Your task to perform on an android device: Go to Google Image 0: 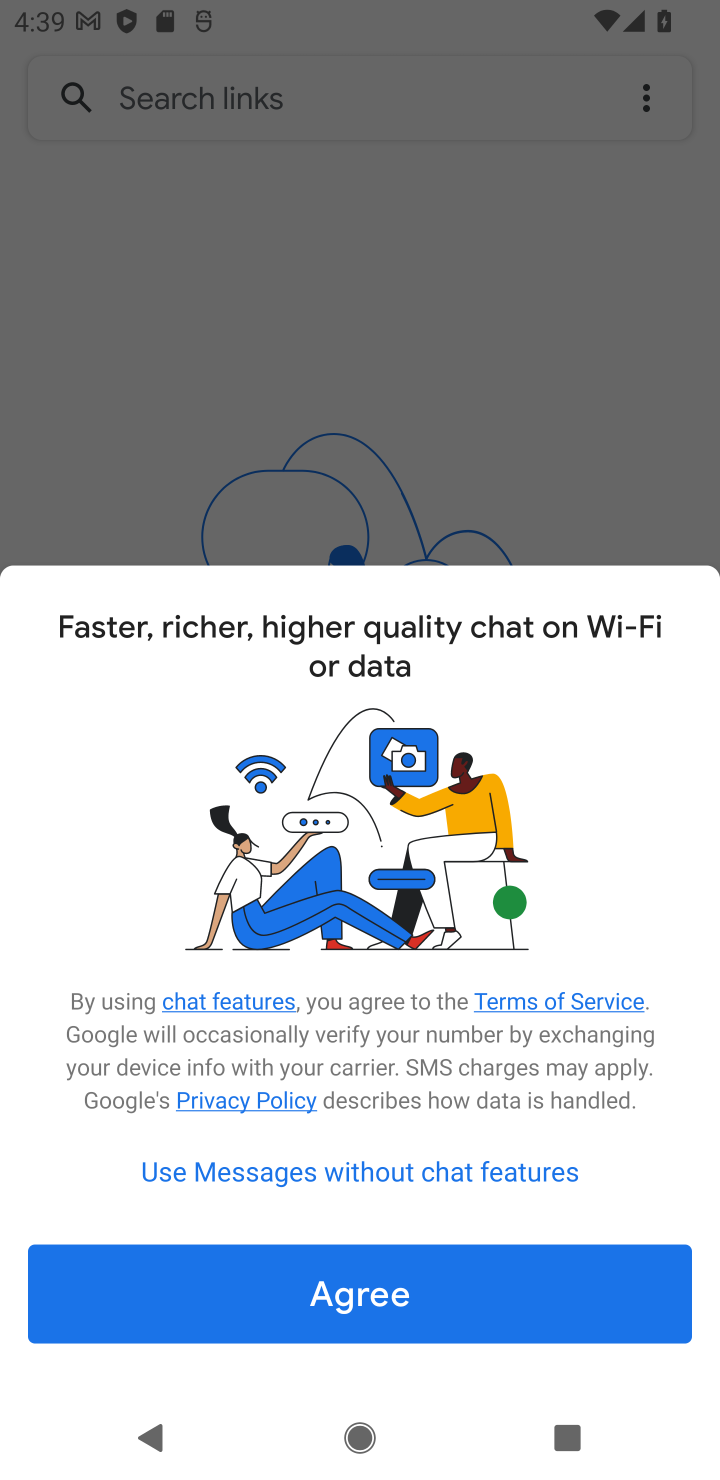
Step 0: press home button
Your task to perform on an android device: Go to Google Image 1: 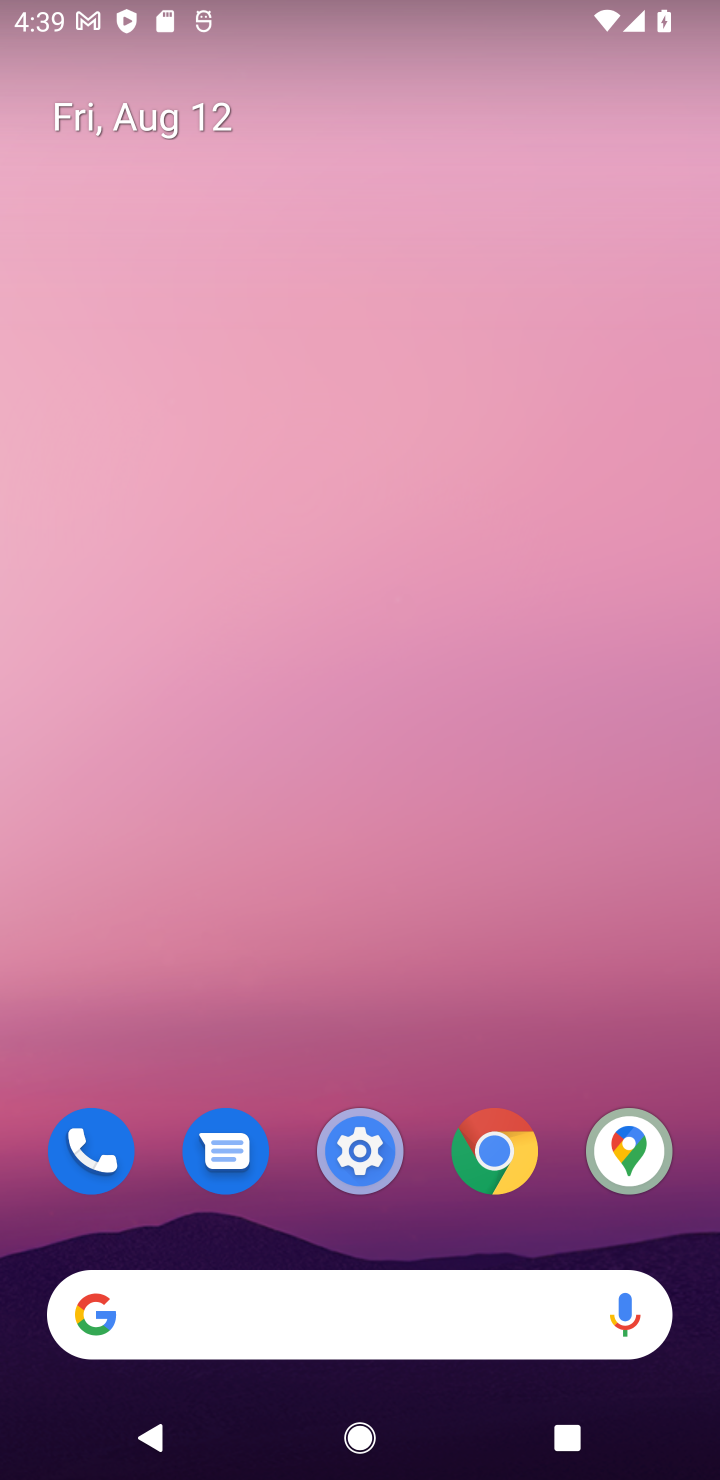
Step 1: drag from (598, 949) to (580, 191)
Your task to perform on an android device: Go to Google Image 2: 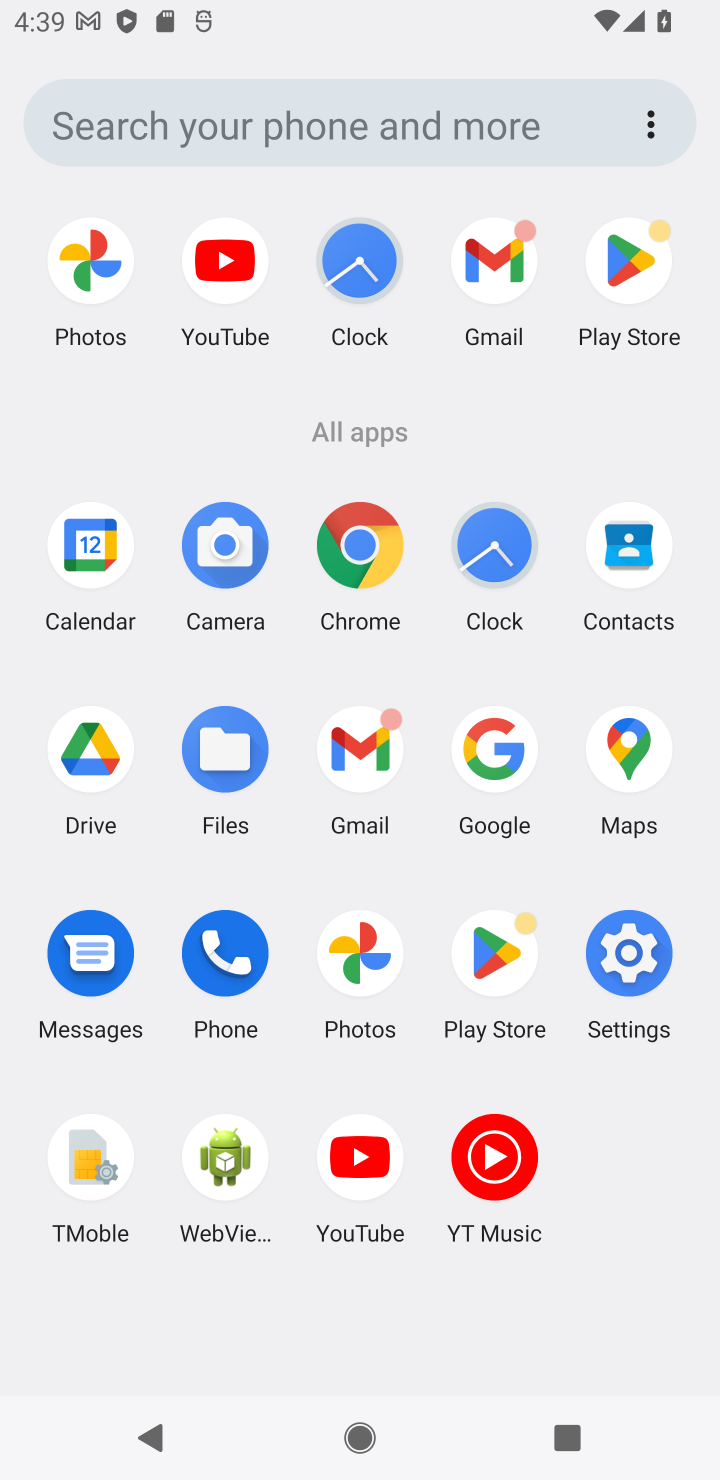
Step 2: click (460, 760)
Your task to perform on an android device: Go to Google Image 3: 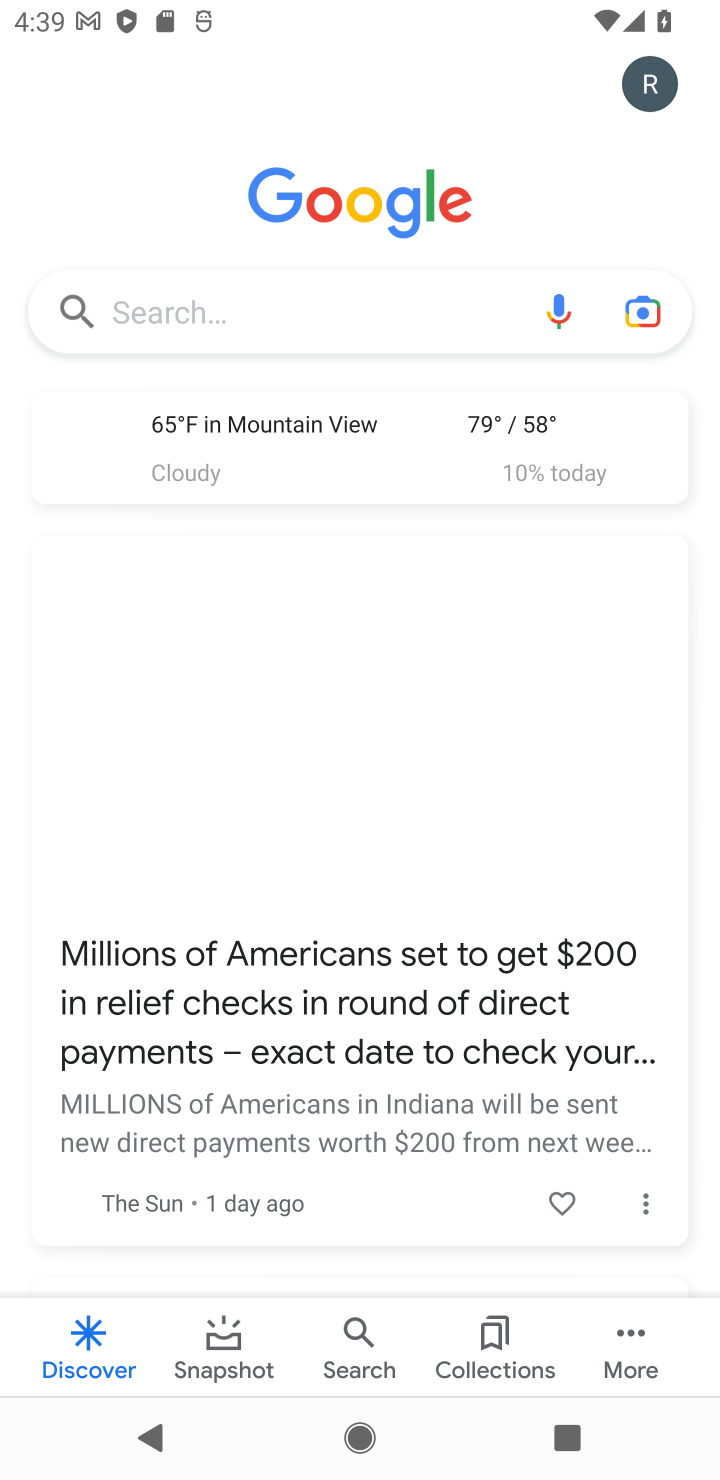
Step 3: task complete